Your task to perform on an android device: check data usage Image 0: 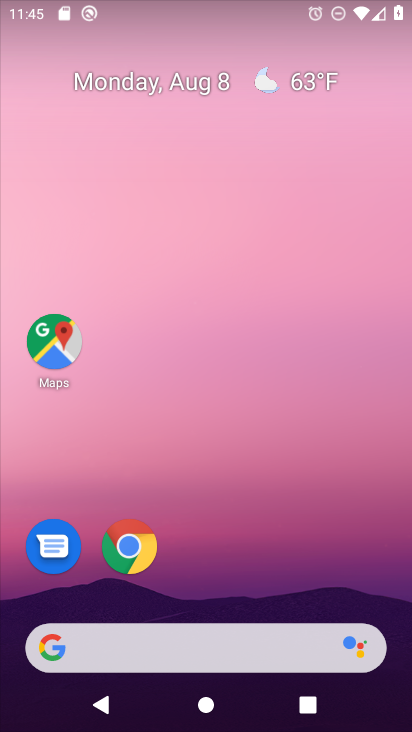
Step 0: press home button
Your task to perform on an android device: check data usage Image 1: 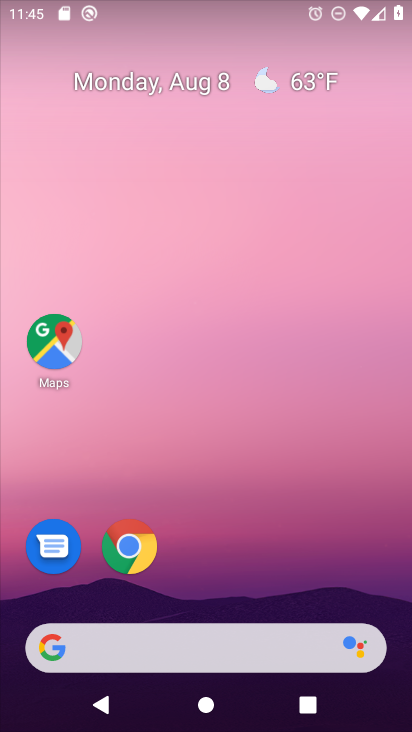
Step 1: drag from (228, 600) to (255, 11)
Your task to perform on an android device: check data usage Image 2: 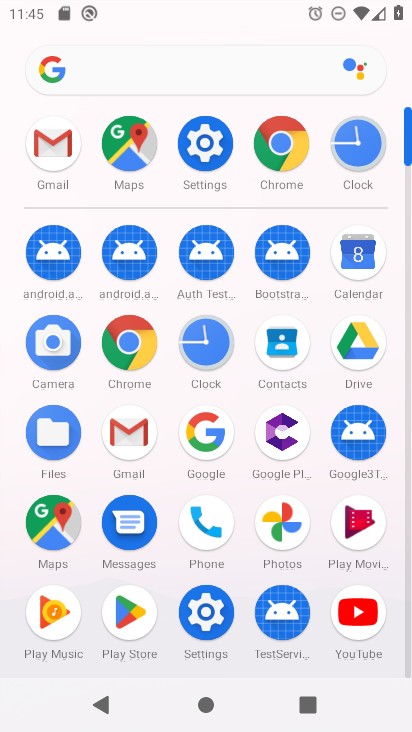
Step 2: click (205, 141)
Your task to perform on an android device: check data usage Image 3: 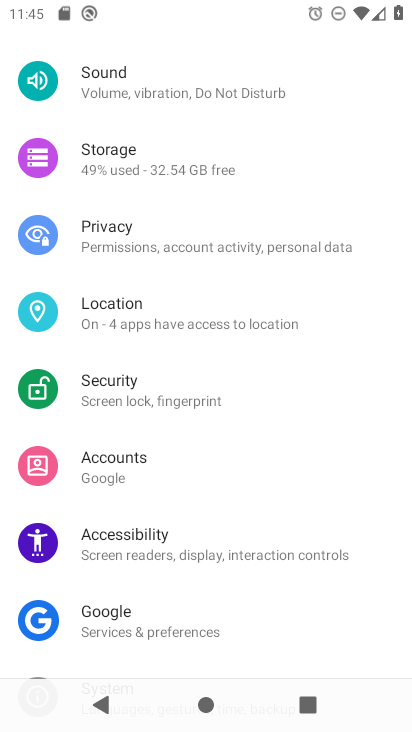
Step 3: drag from (142, 93) to (125, 644)
Your task to perform on an android device: check data usage Image 4: 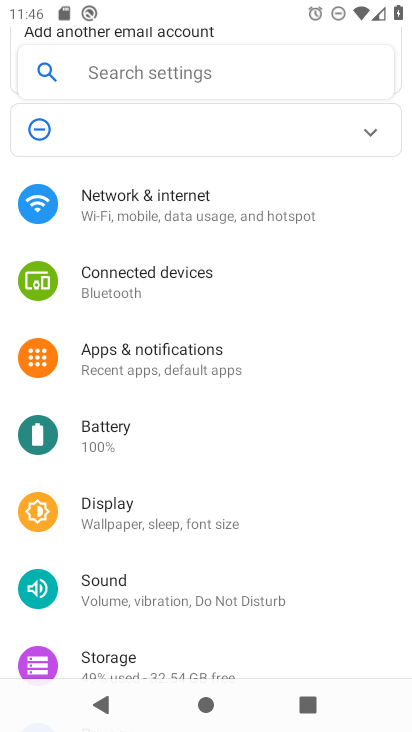
Step 4: click (192, 209)
Your task to perform on an android device: check data usage Image 5: 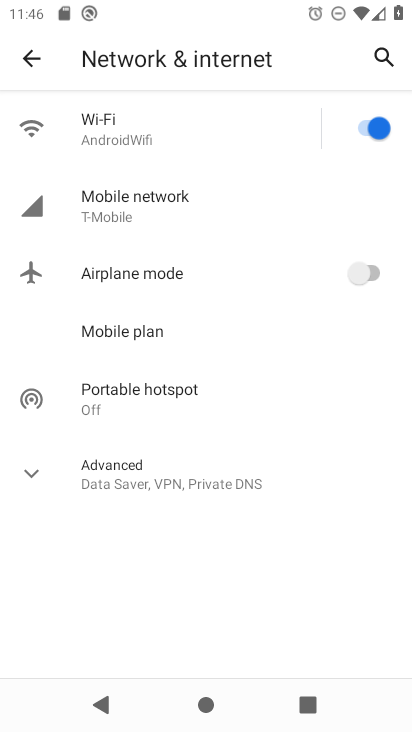
Step 5: click (142, 209)
Your task to perform on an android device: check data usage Image 6: 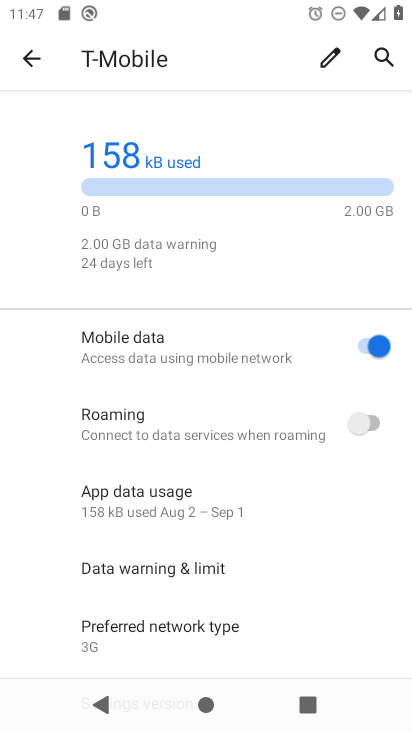
Step 6: click (179, 499)
Your task to perform on an android device: check data usage Image 7: 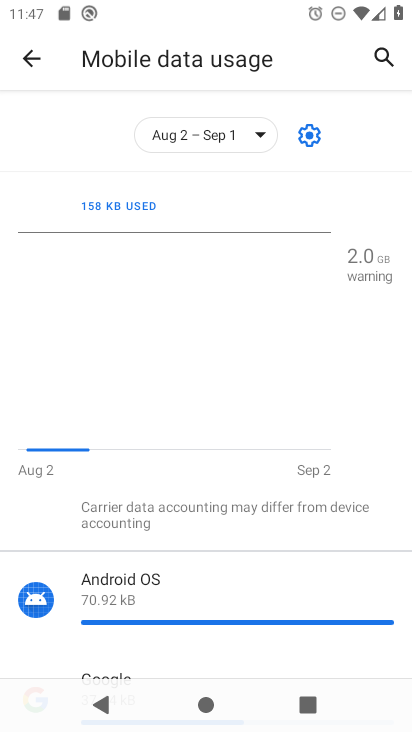
Step 7: task complete